Your task to perform on an android device: Go to Android settings Image 0: 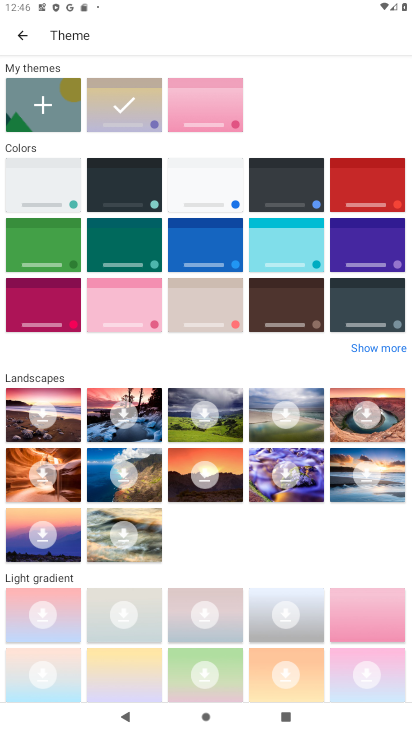
Step 0: press back button
Your task to perform on an android device: Go to Android settings Image 1: 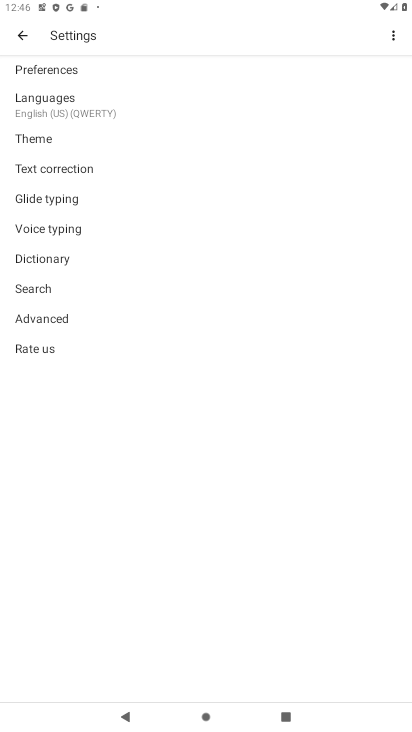
Step 1: task complete